Your task to perform on an android device: Open the Play Movies app and select the watchlist tab. Image 0: 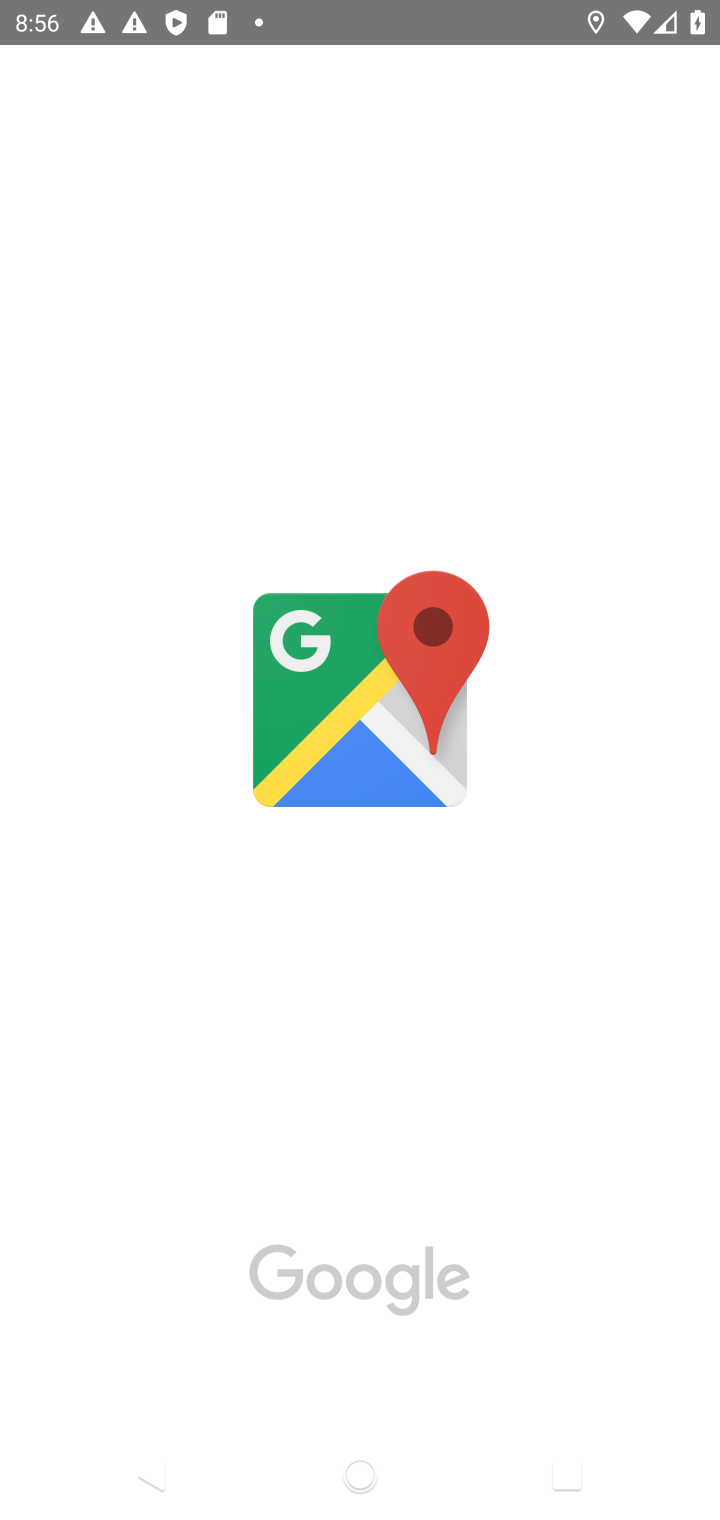
Step 0: press home button
Your task to perform on an android device: Open the Play Movies app and select the watchlist tab. Image 1: 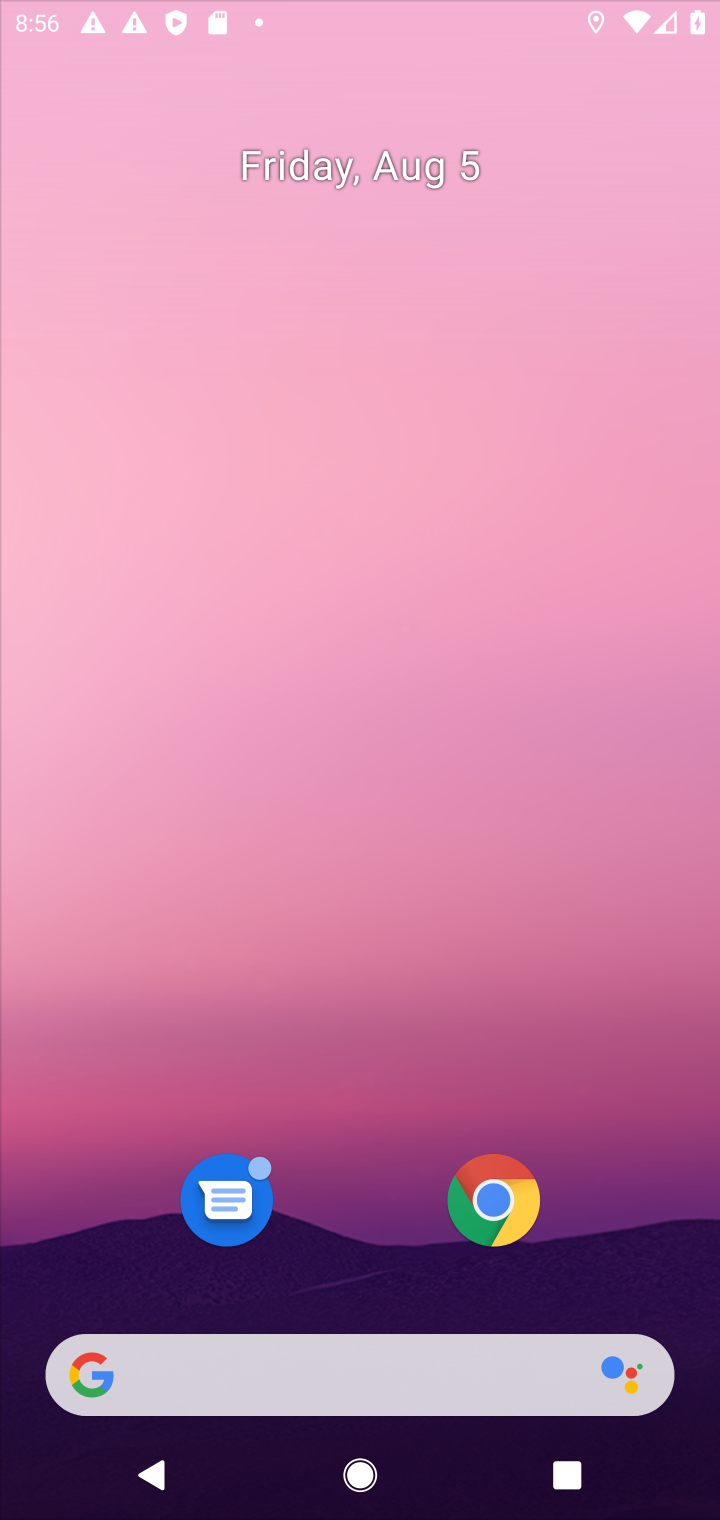
Step 1: press home button
Your task to perform on an android device: Open the Play Movies app and select the watchlist tab. Image 2: 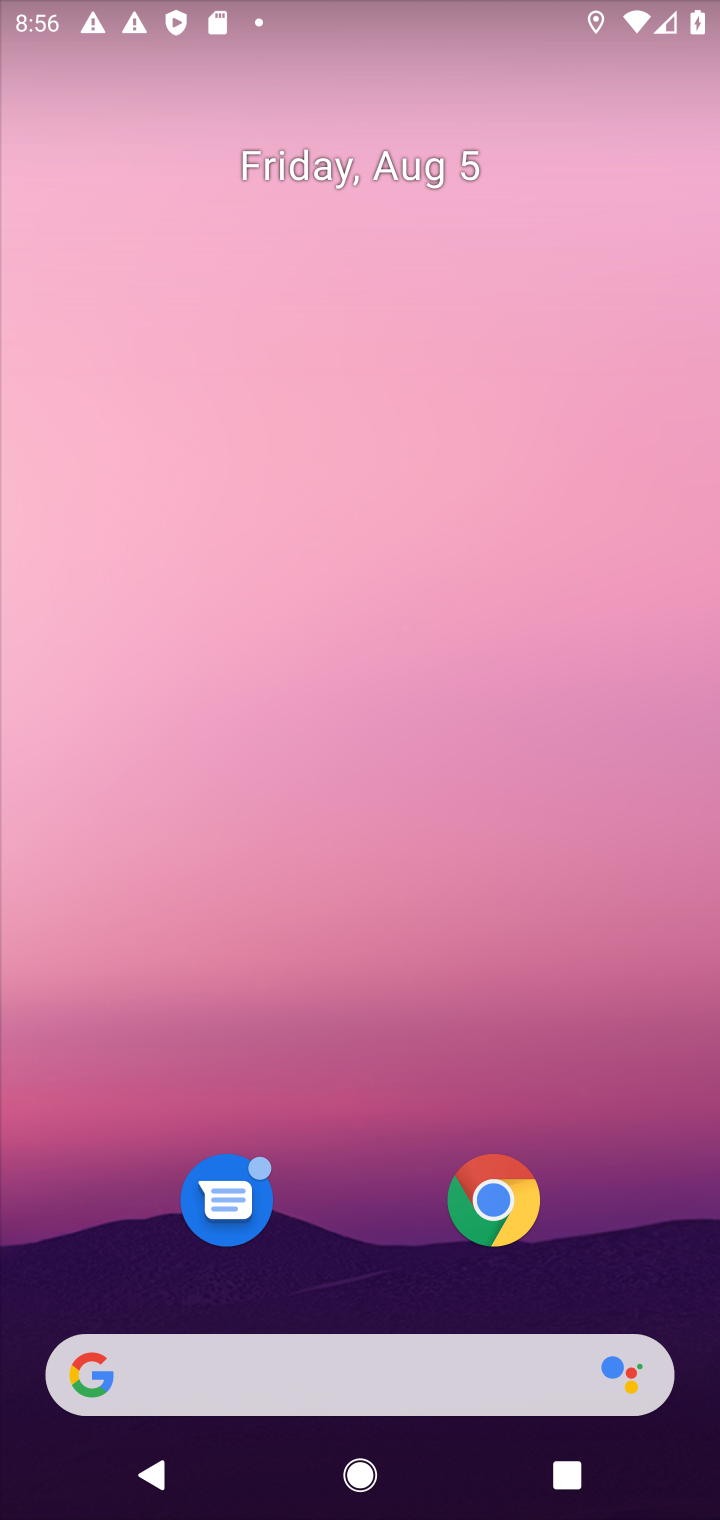
Step 2: drag from (611, 1210) to (509, 54)
Your task to perform on an android device: Open the Play Movies app and select the watchlist tab. Image 3: 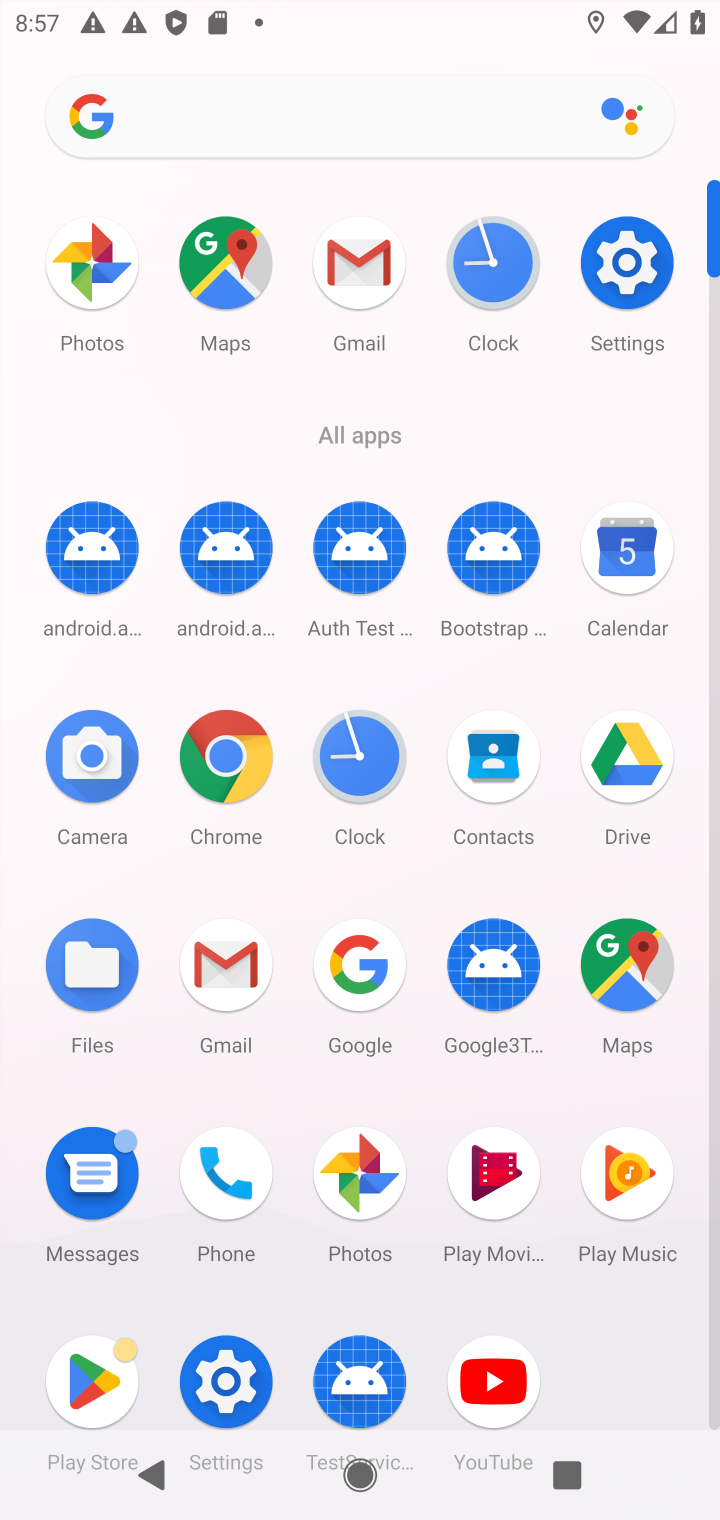
Step 3: click (514, 1164)
Your task to perform on an android device: Open the Play Movies app and select the watchlist tab. Image 4: 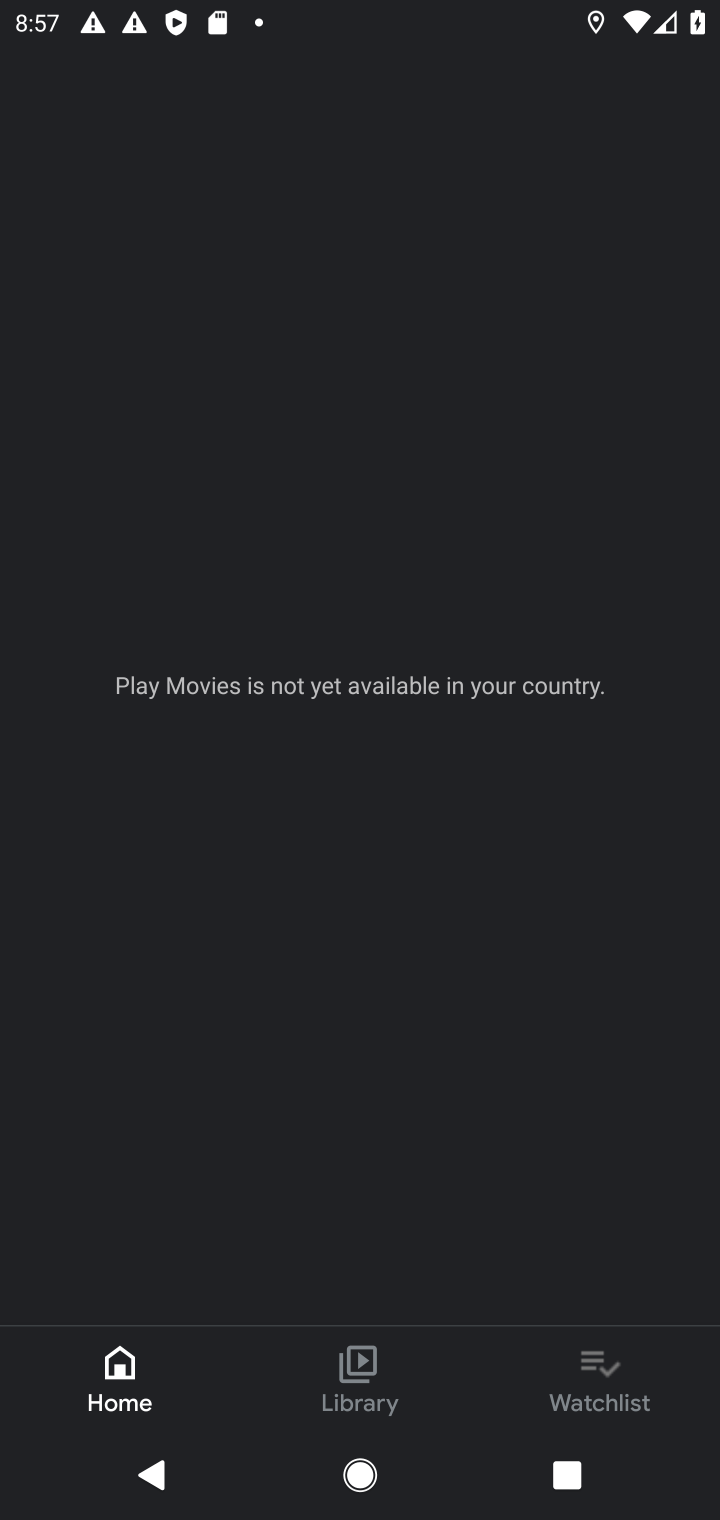
Step 4: click (574, 1378)
Your task to perform on an android device: Open the Play Movies app and select the watchlist tab. Image 5: 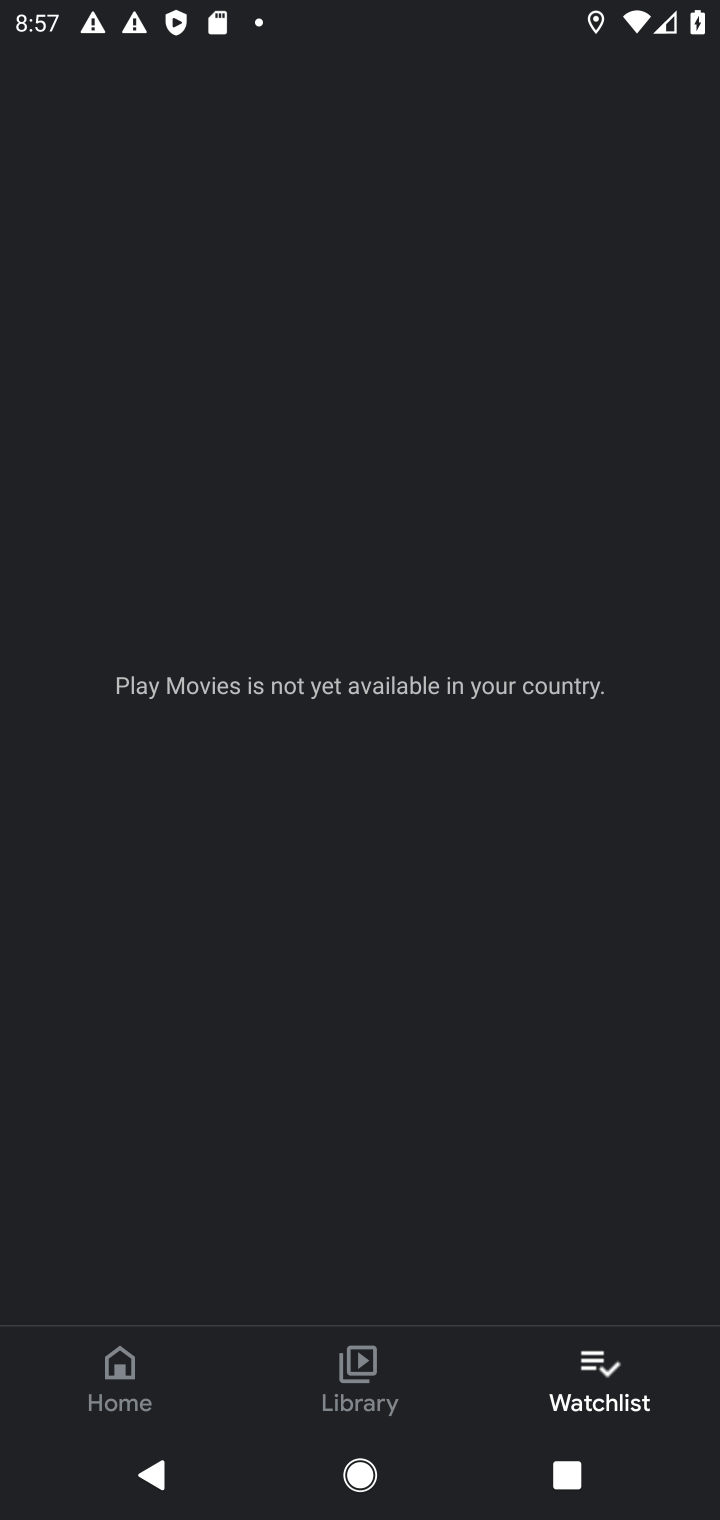
Step 5: task complete